Your task to perform on an android device: Open Chrome and go to the settings page Image 0: 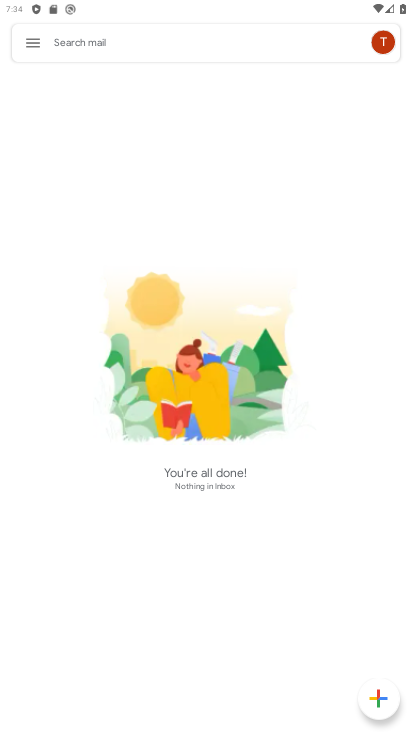
Step 0: press back button
Your task to perform on an android device: Open Chrome and go to the settings page Image 1: 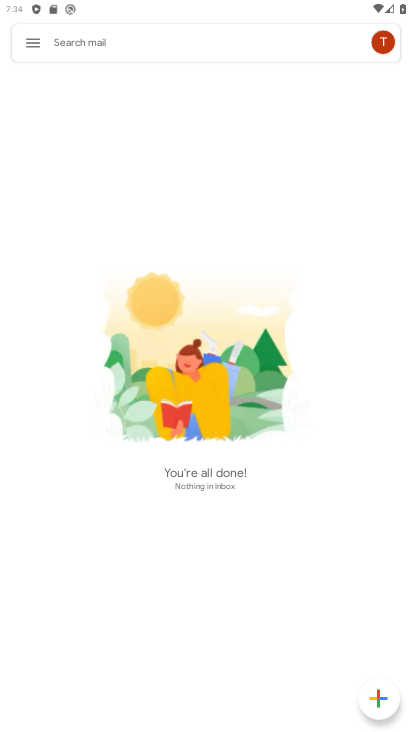
Step 1: press back button
Your task to perform on an android device: Open Chrome and go to the settings page Image 2: 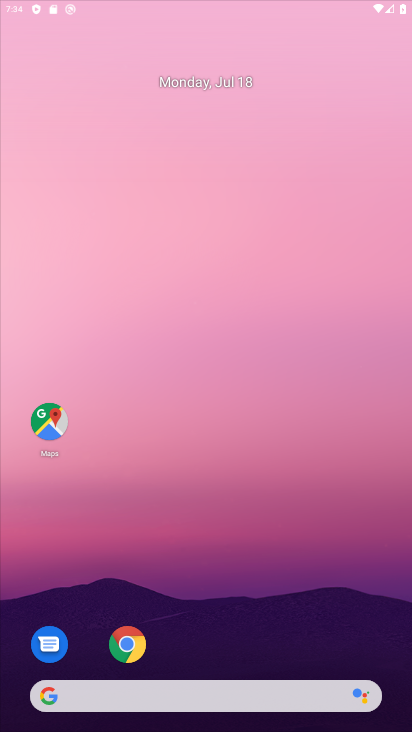
Step 2: press back button
Your task to perform on an android device: Open Chrome and go to the settings page Image 3: 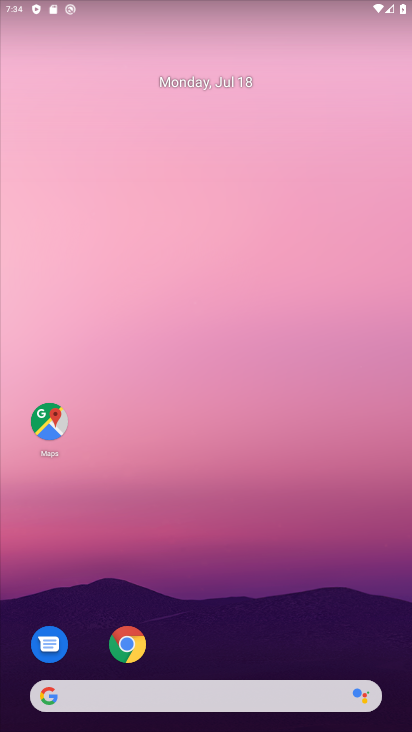
Step 3: drag from (292, 637) to (265, 129)
Your task to perform on an android device: Open Chrome and go to the settings page Image 4: 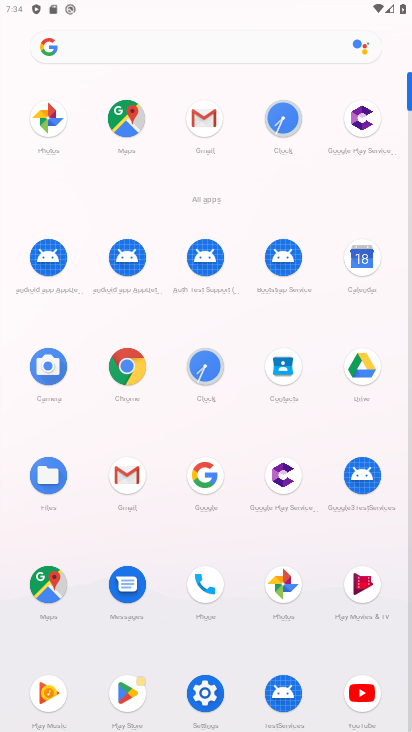
Step 4: click (205, 694)
Your task to perform on an android device: Open Chrome and go to the settings page Image 5: 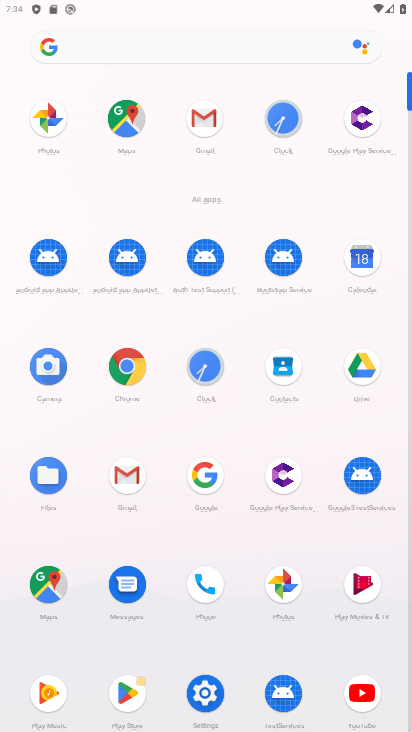
Step 5: click (205, 694)
Your task to perform on an android device: Open Chrome and go to the settings page Image 6: 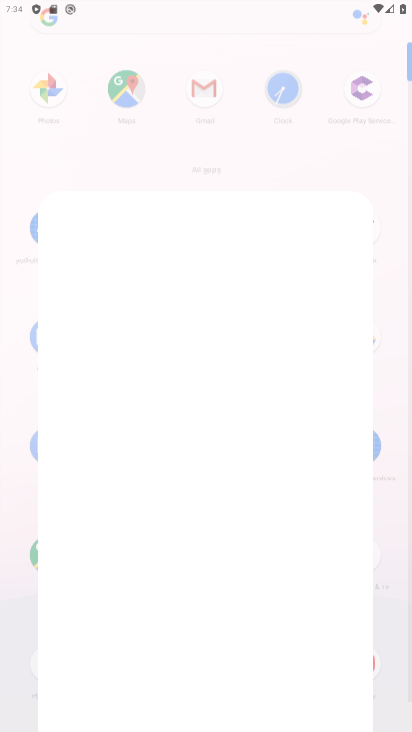
Step 6: click (205, 694)
Your task to perform on an android device: Open Chrome and go to the settings page Image 7: 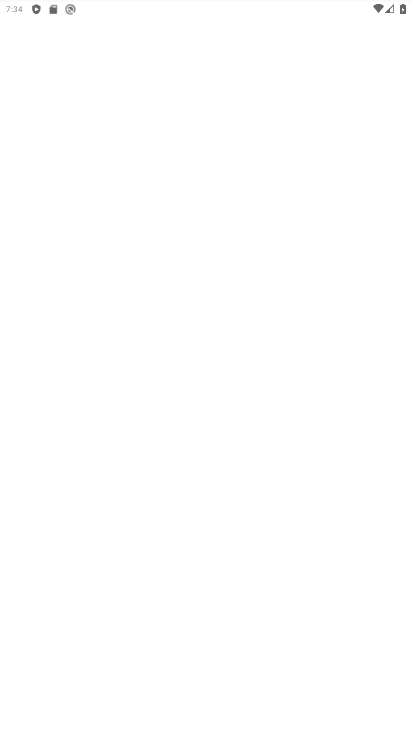
Step 7: click (205, 694)
Your task to perform on an android device: Open Chrome and go to the settings page Image 8: 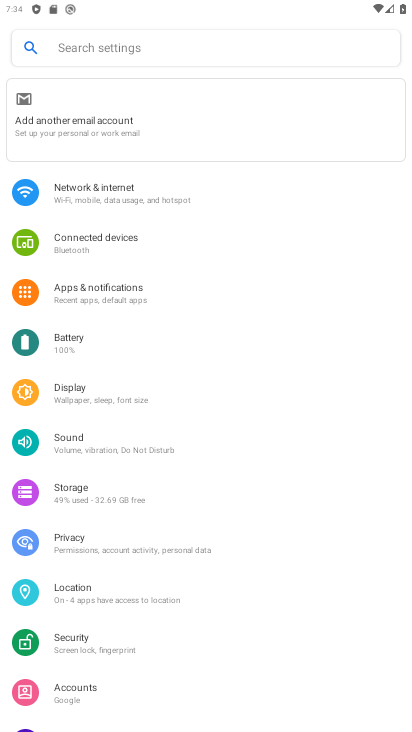
Step 8: press home button
Your task to perform on an android device: Open Chrome and go to the settings page Image 9: 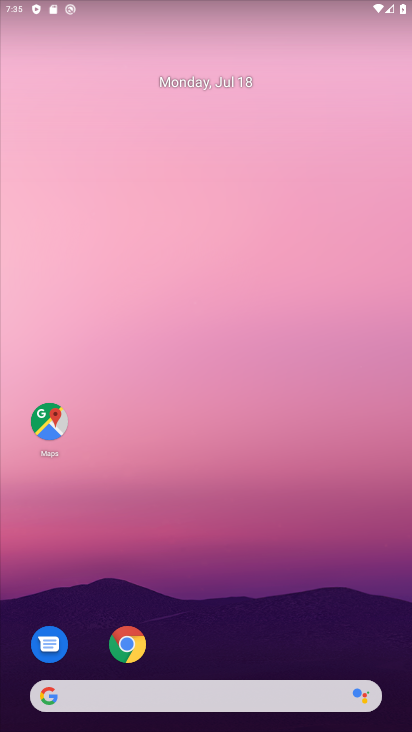
Step 9: drag from (198, 617) to (173, 154)
Your task to perform on an android device: Open Chrome and go to the settings page Image 10: 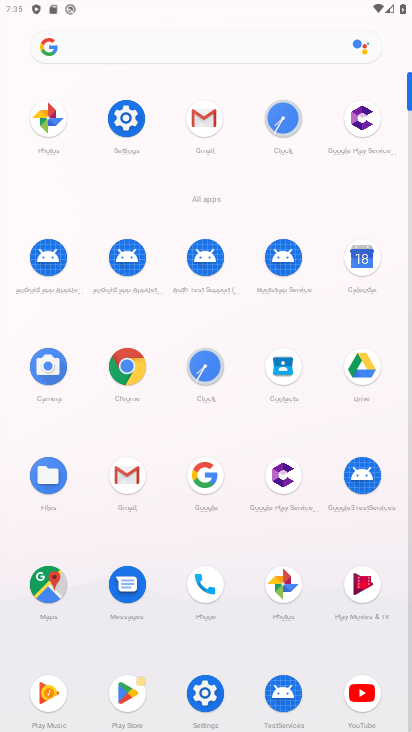
Step 10: click (121, 360)
Your task to perform on an android device: Open Chrome and go to the settings page Image 11: 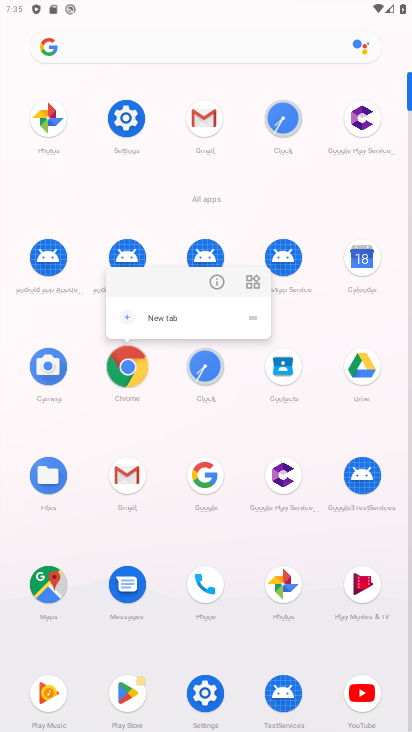
Step 11: click (122, 361)
Your task to perform on an android device: Open Chrome and go to the settings page Image 12: 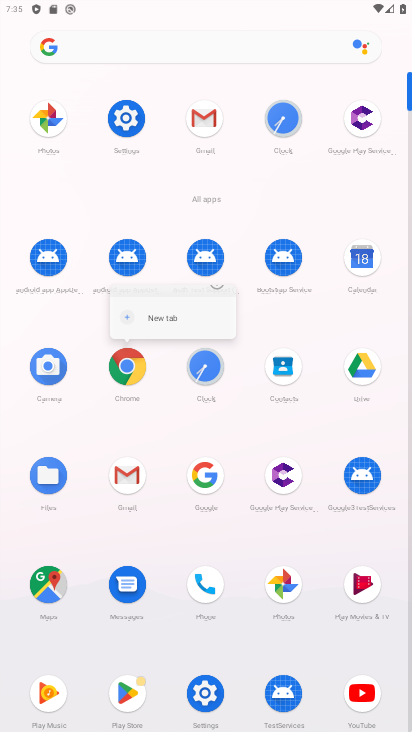
Step 12: click (122, 361)
Your task to perform on an android device: Open Chrome and go to the settings page Image 13: 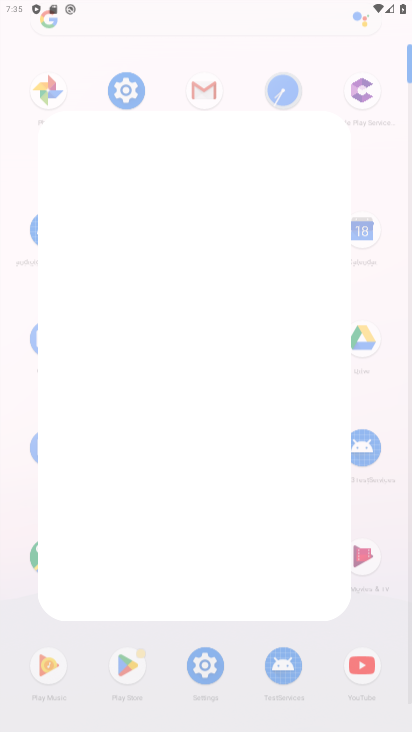
Step 13: click (129, 357)
Your task to perform on an android device: Open Chrome and go to the settings page Image 14: 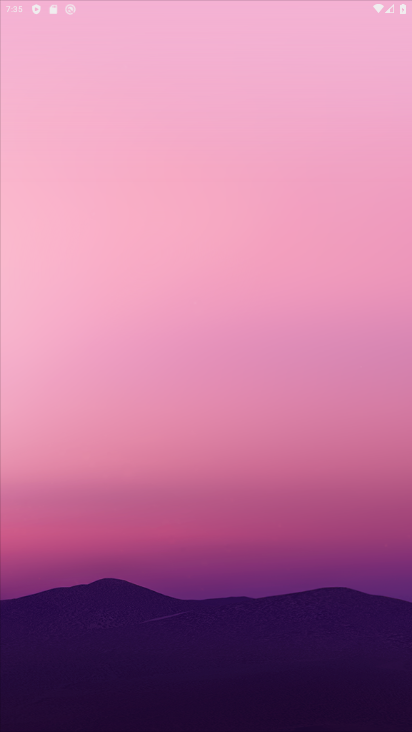
Step 14: click (127, 357)
Your task to perform on an android device: Open Chrome and go to the settings page Image 15: 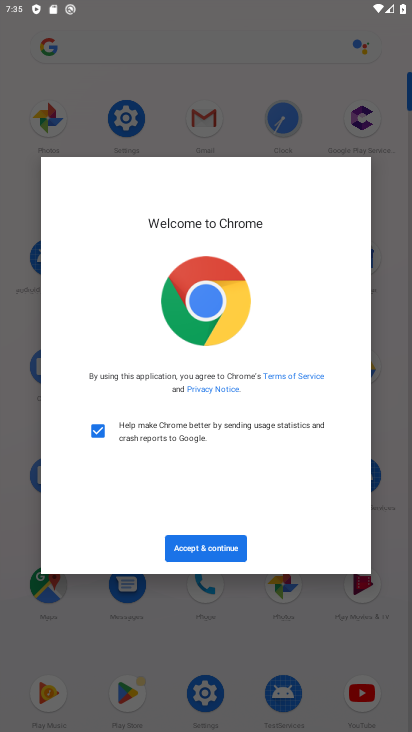
Step 15: click (216, 550)
Your task to perform on an android device: Open Chrome and go to the settings page Image 16: 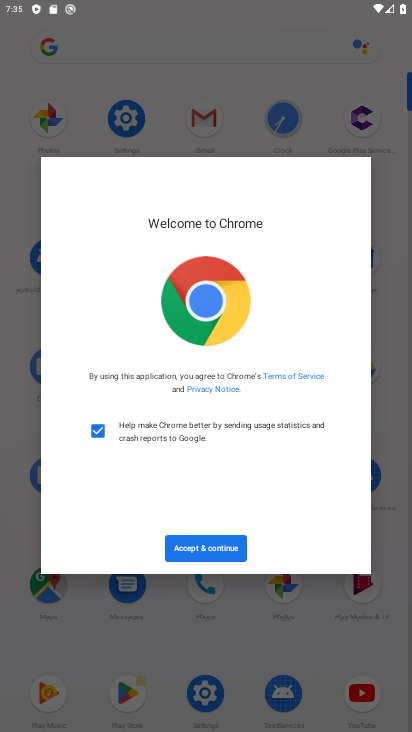
Step 16: click (216, 550)
Your task to perform on an android device: Open Chrome and go to the settings page Image 17: 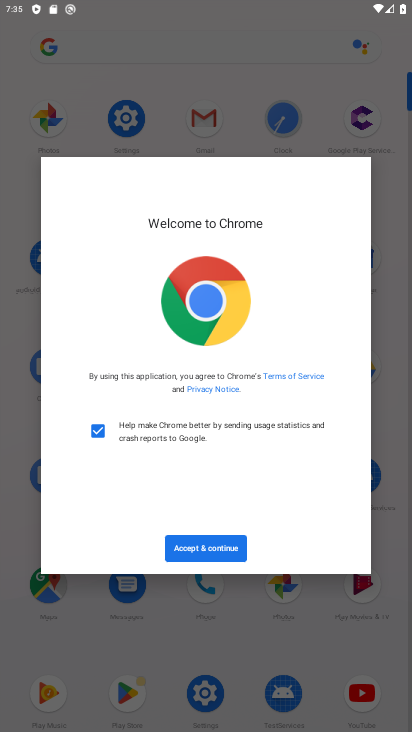
Step 17: click (216, 550)
Your task to perform on an android device: Open Chrome and go to the settings page Image 18: 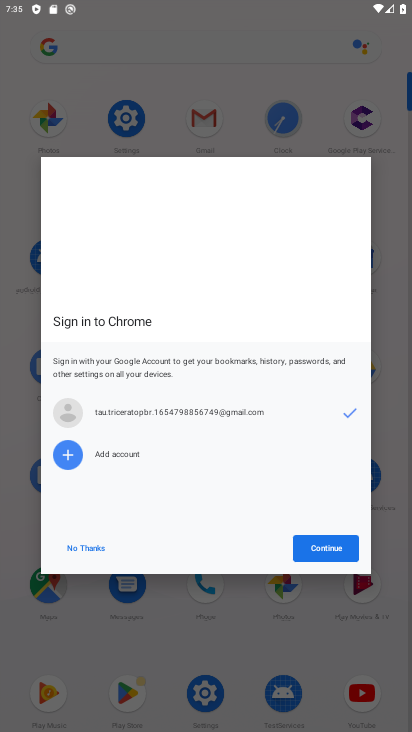
Step 18: click (324, 545)
Your task to perform on an android device: Open Chrome and go to the settings page Image 19: 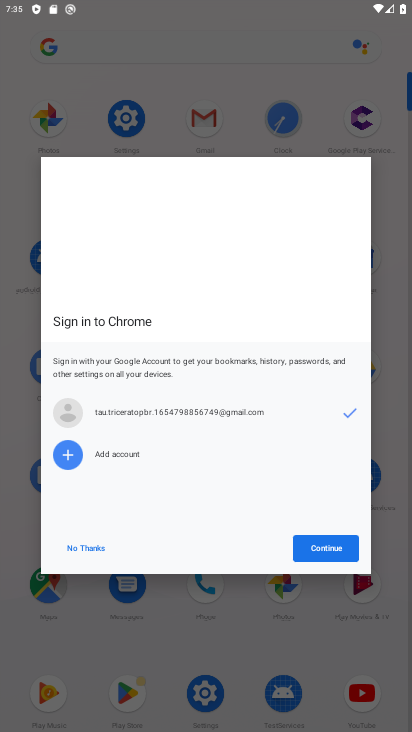
Step 19: click (326, 547)
Your task to perform on an android device: Open Chrome and go to the settings page Image 20: 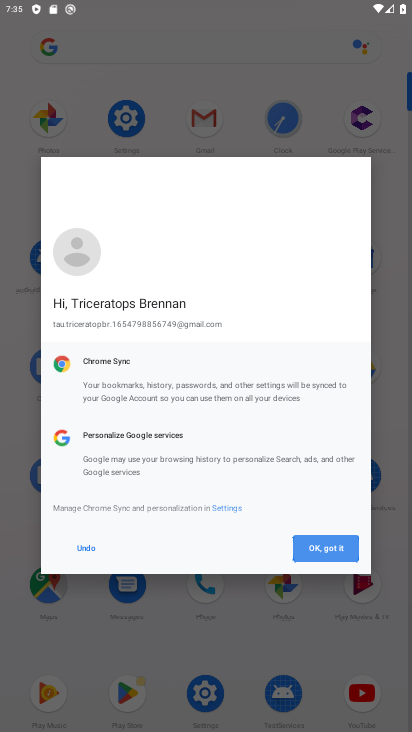
Step 20: click (326, 547)
Your task to perform on an android device: Open Chrome and go to the settings page Image 21: 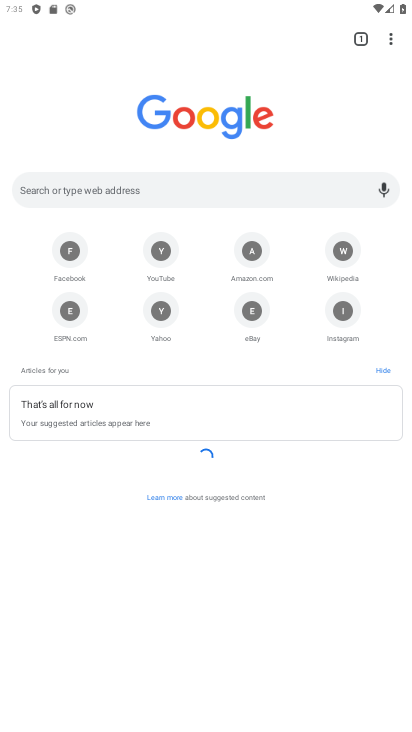
Step 21: drag from (384, 39) to (371, 104)
Your task to perform on an android device: Open Chrome and go to the settings page Image 22: 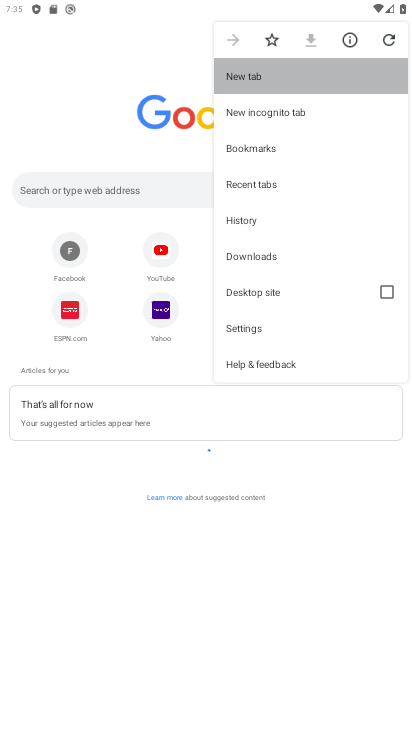
Step 22: drag from (308, 253) to (281, 275)
Your task to perform on an android device: Open Chrome and go to the settings page Image 23: 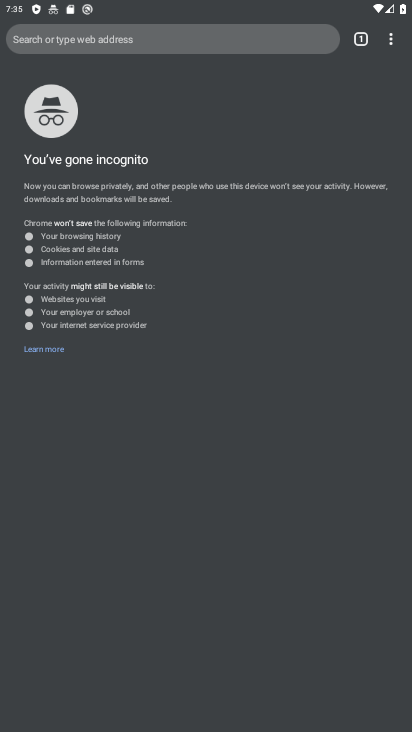
Step 23: drag from (396, 45) to (241, 298)
Your task to perform on an android device: Open Chrome and go to the settings page Image 24: 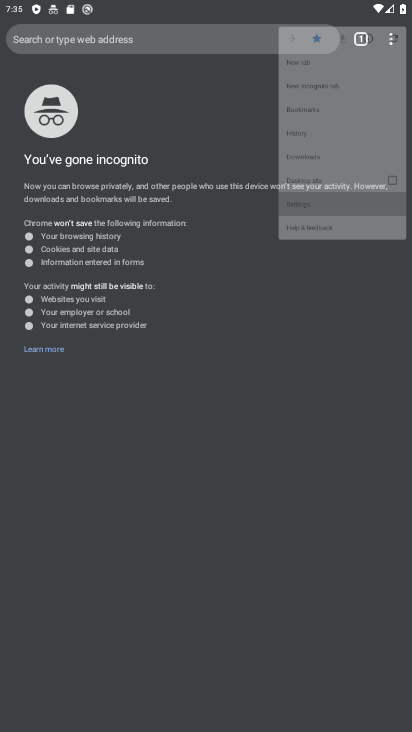
Step 24: click (240, 299)
Your task to perform on an android device: Open Chrome and go to the settings page Image 25: 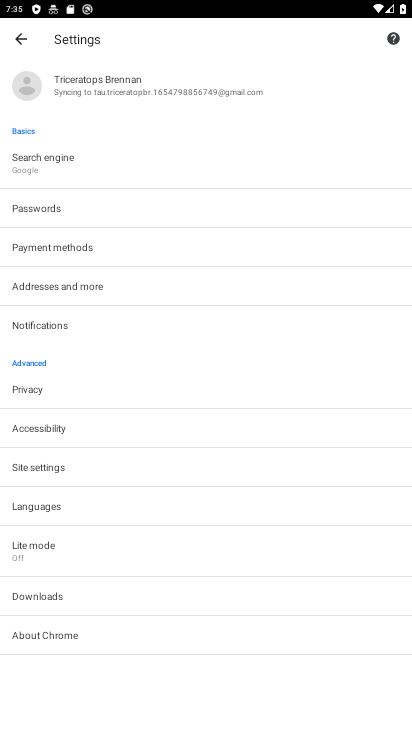
Step 25: task complete